Your task to perform on an android device: Toggle the flashlight Image 0: 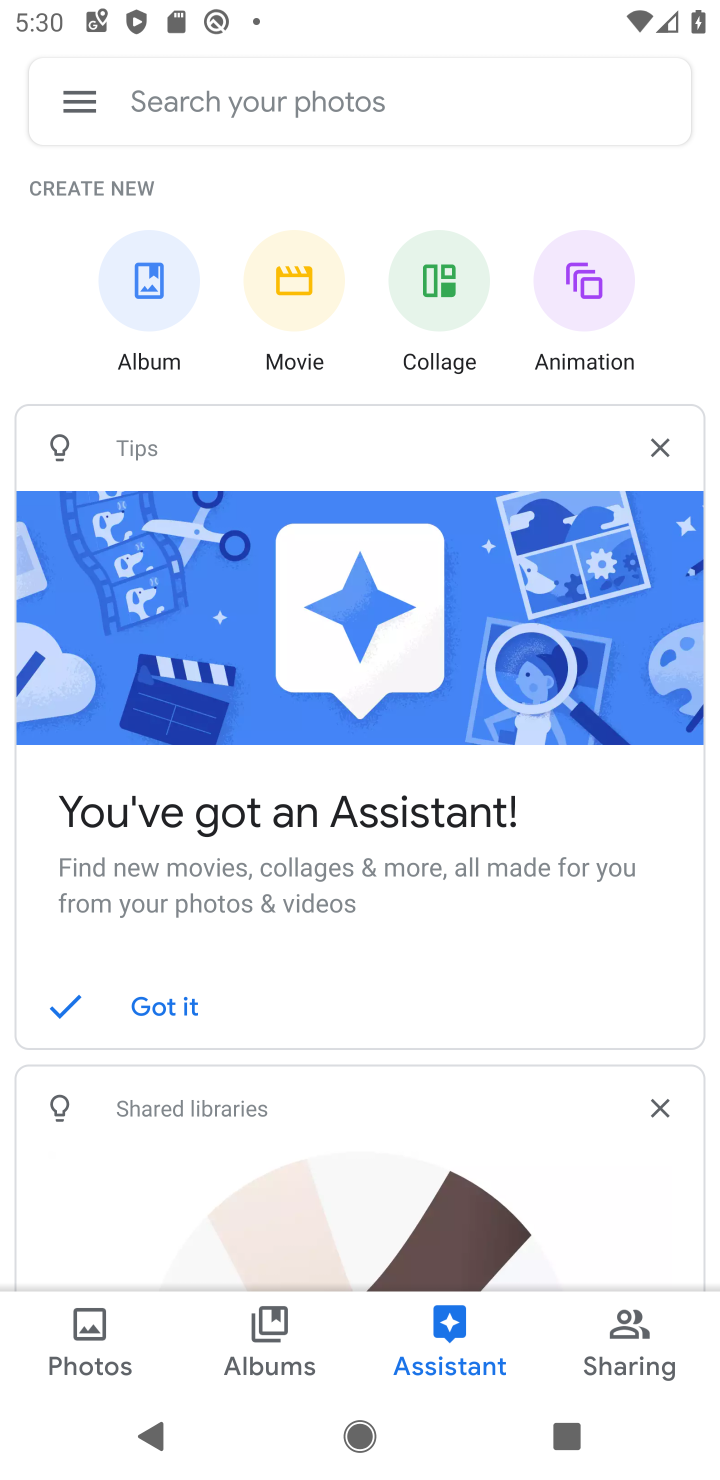
Step 0: press home button
Your task to perform on an android device: Toggle the flashlight Image 1: 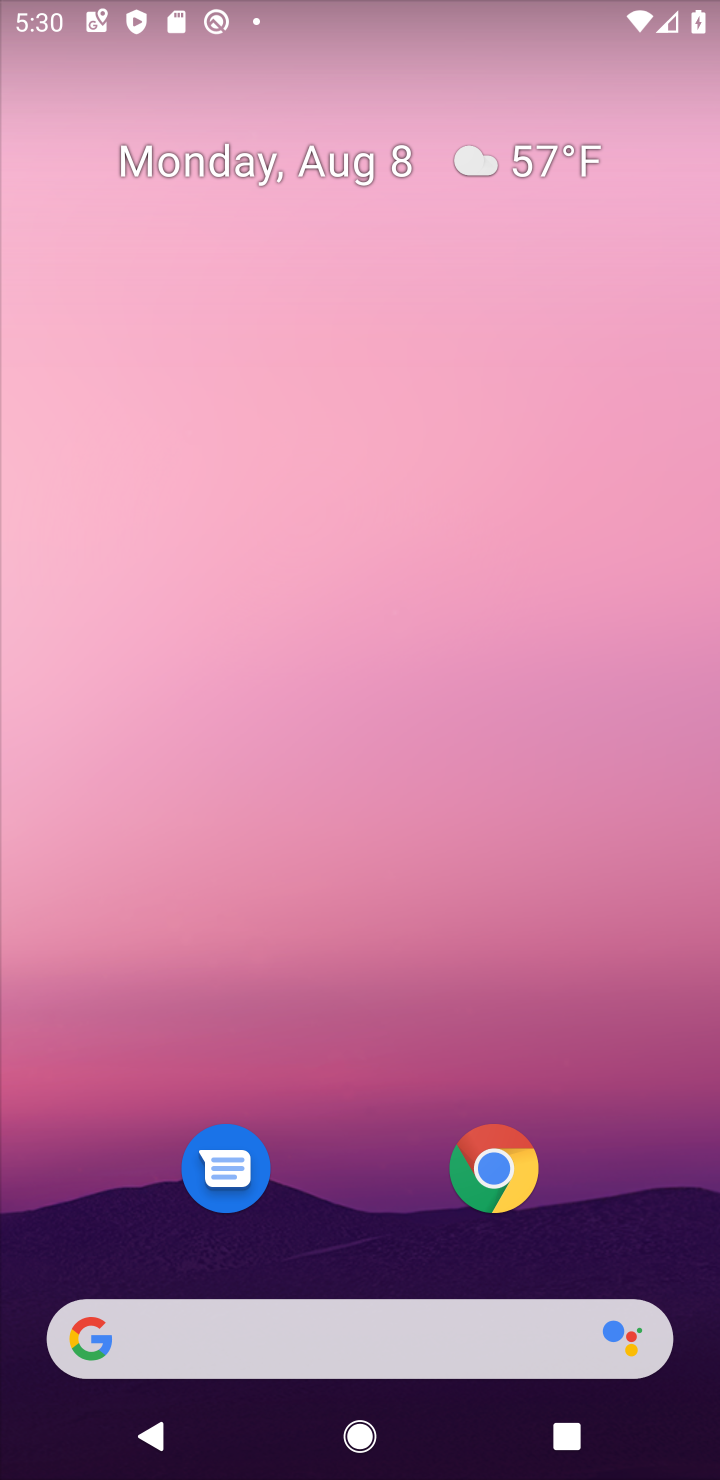
Step 1: task complete